Your task to perform on an android device: turn off location Image 0: 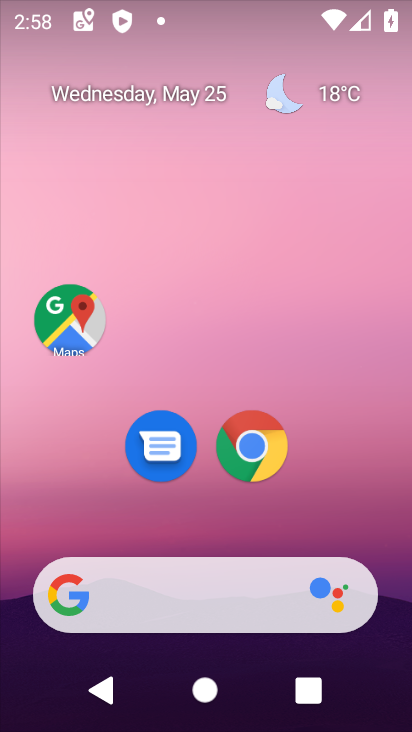
Step 0: drag from (232, 568) to (124, 6)
Your task to perform on an android device: turn off location Image 1: 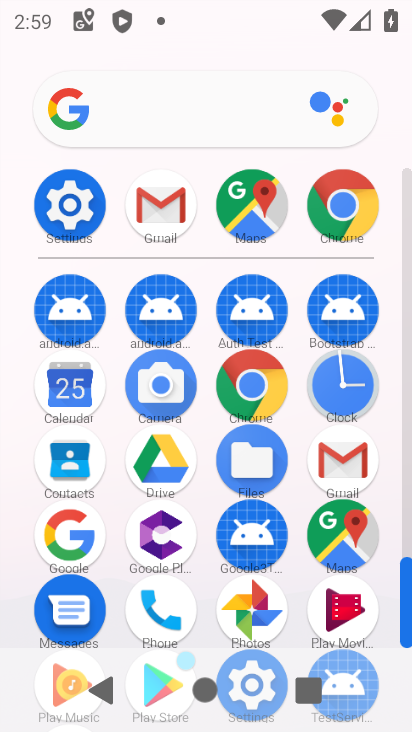
Step 1: click (70, 194)
Your task to perform on an android device: turn off location Image 2: 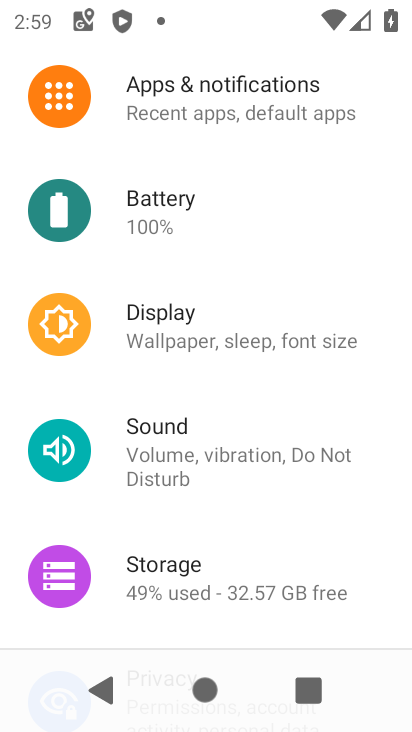
Step 2: drag from (167, 508) to (130, 154)
Your task to perform on an android device: turn off location Image 3: 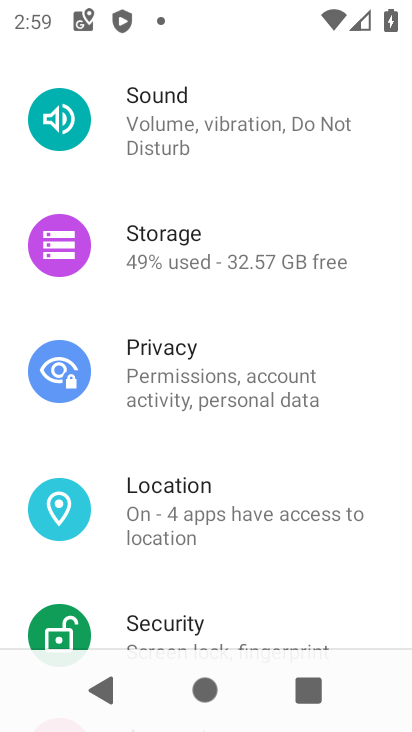
Step 3: click (165, 499)
Your task to perform on an android device: turn off location Image 4: 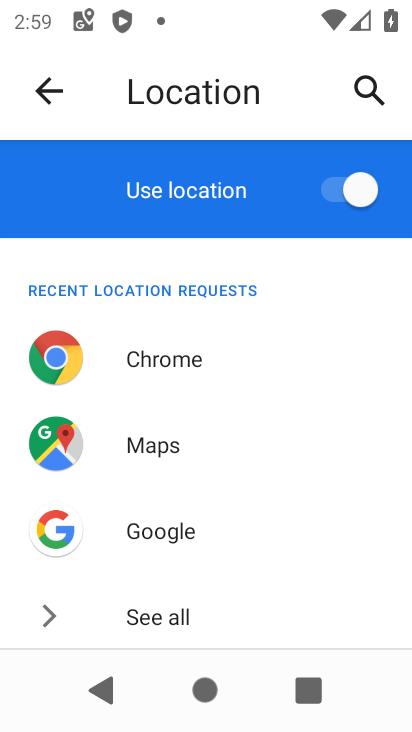
Step 4: click (340, 190)
Your task to perform on an android device: turn off location Image 5: 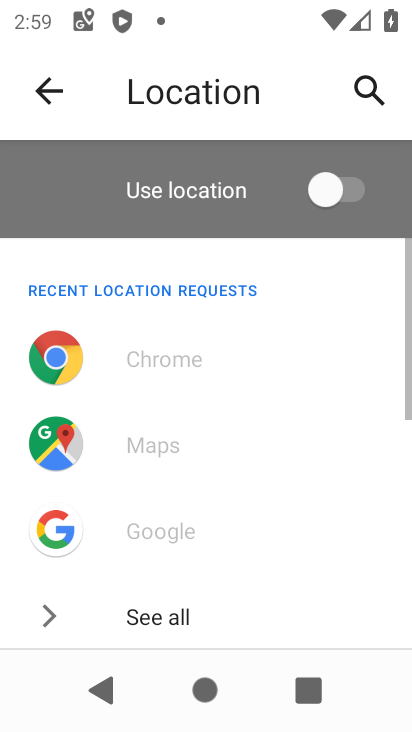
Step 5: task complete